Your task to perform on an android device: Go to settings Image 0: 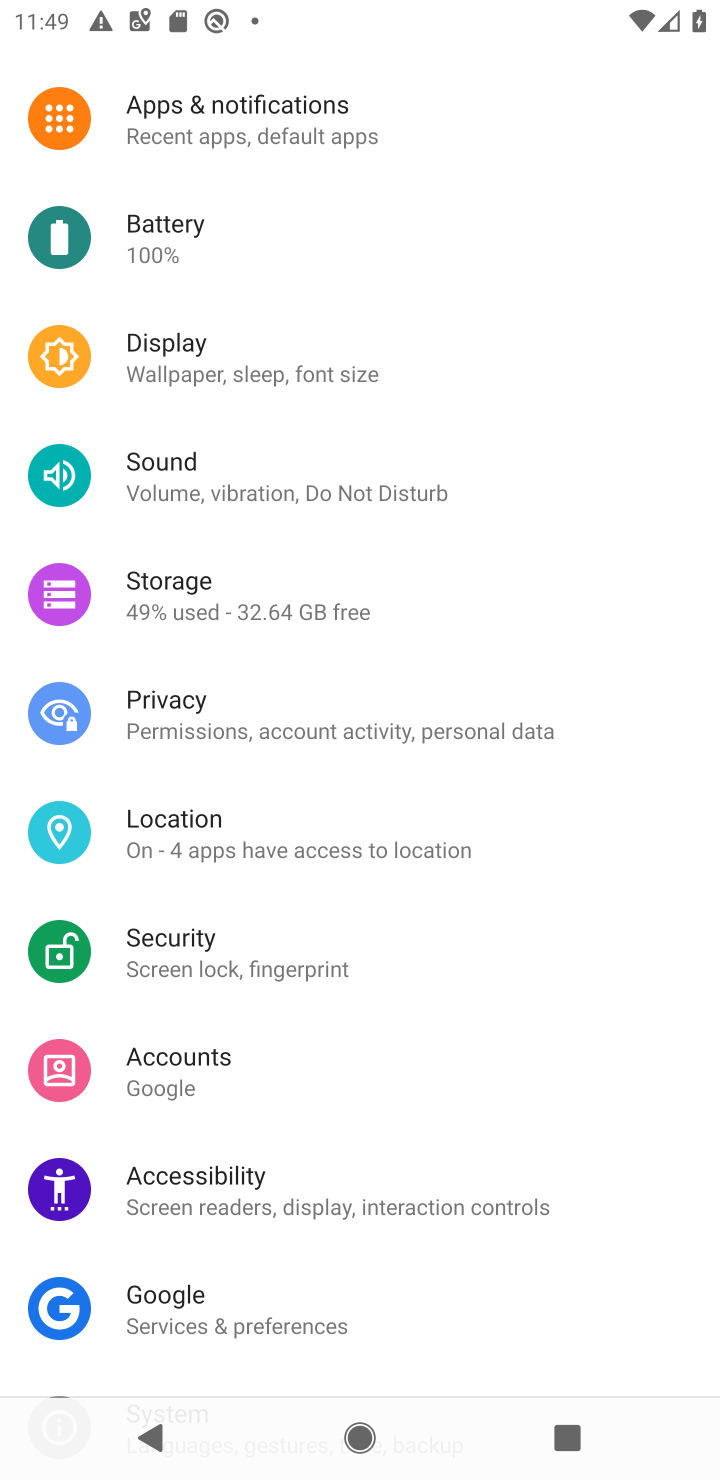
Step 0: task complete